Your task to perform on an android device: What is the recent news? Image 0: 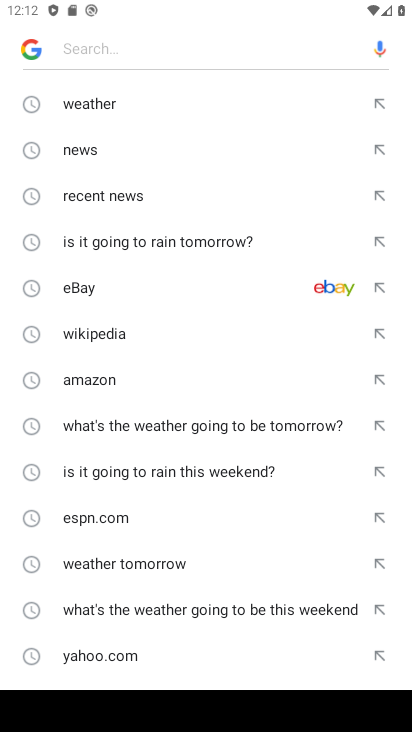
Step 0: click (164, 355)
Your task to perform on an android device: What is the recent news? Image 1: 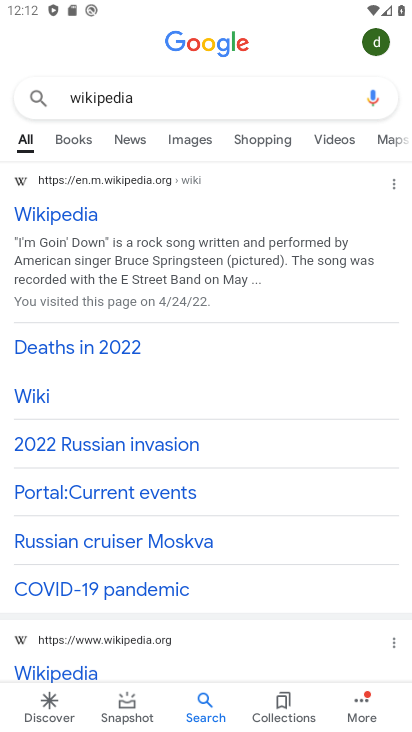
Step 1: press home button
Your task to perform on an android device: What is the recent news? Image 2: 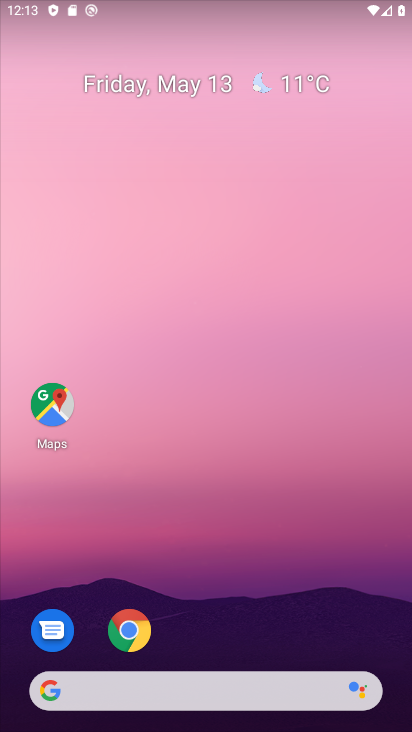
Step 2: click (157, 701)
Your task to perform on an android device: What is the recent news? Image 3: 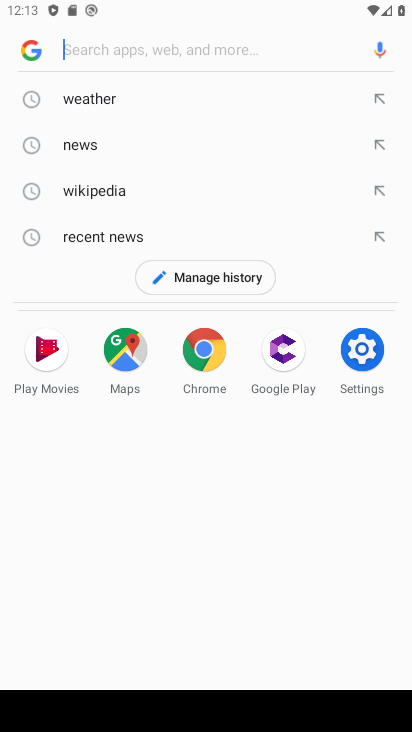
Step 3: click (96, 136)
Your task to perform on an android device: What is the recent news? Image 4: 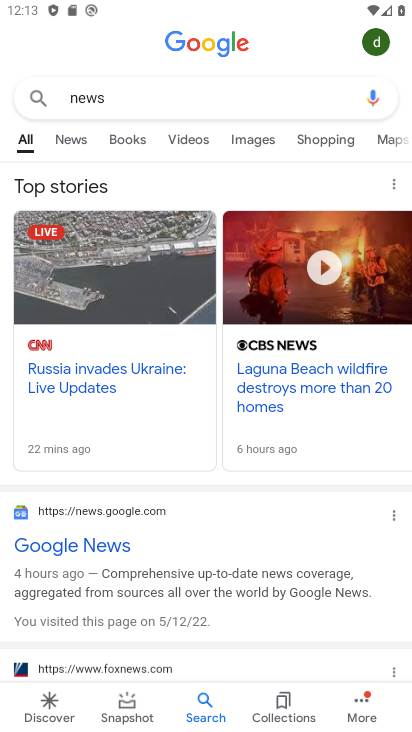
Step 4: task complete